Your task to perform on an android device: toggle wifi Image 0: 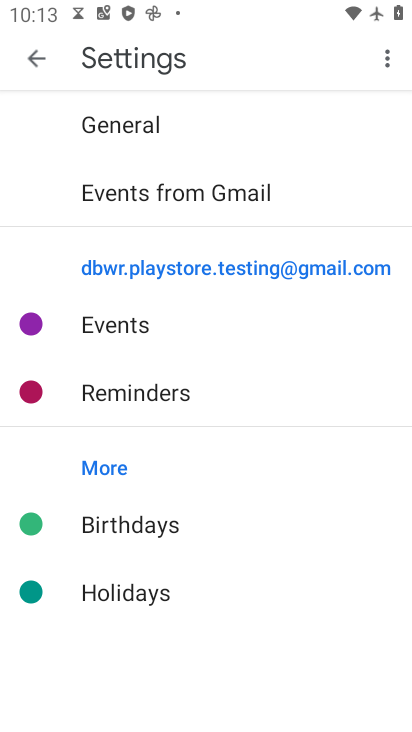
Step 0: press back button
Your task to perform on an android device: toggle wifi Image 1: 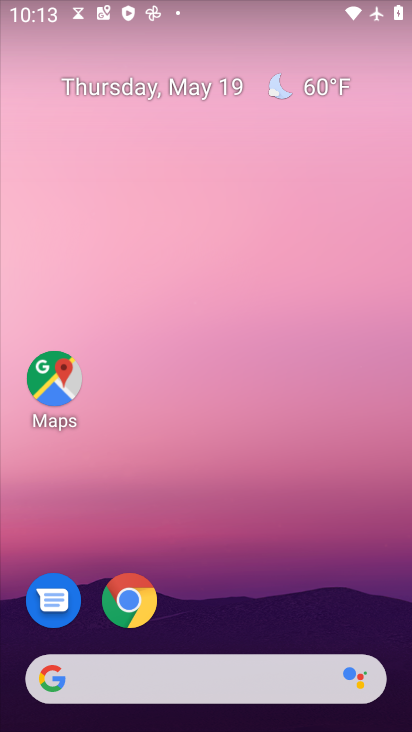
Step 1: drag from (200, 523) to (205, 6)
Your task to perform on an android device: toggle wifi Image 2: 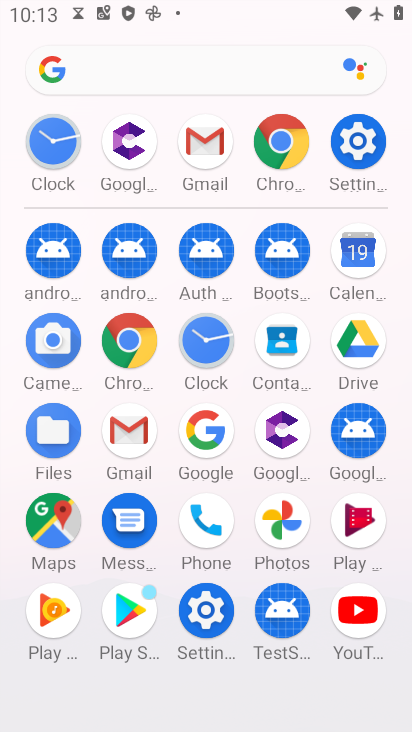
Step 2: drag from (9, 543) to (13, 260)
Your task to perform on an android device: toggle wifi Image 3: 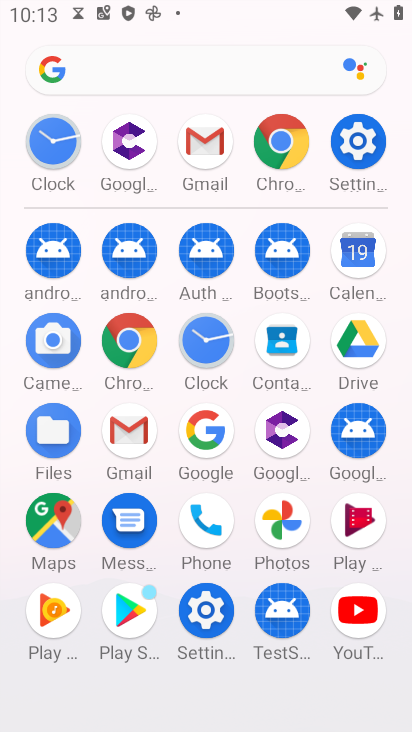
Step 3: click (208, 604)
Your task to perform on an android device: toggle wifi Image 4: 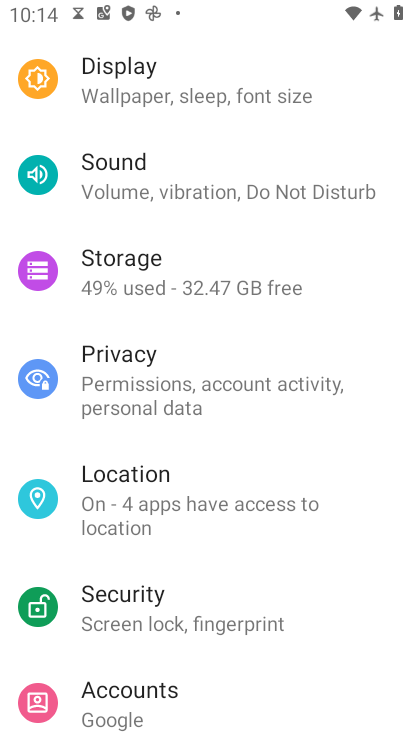
Step 4: drag from (203, 106) to (196, 534)
Your task to perform on an android device: toggle wifi Image 5: 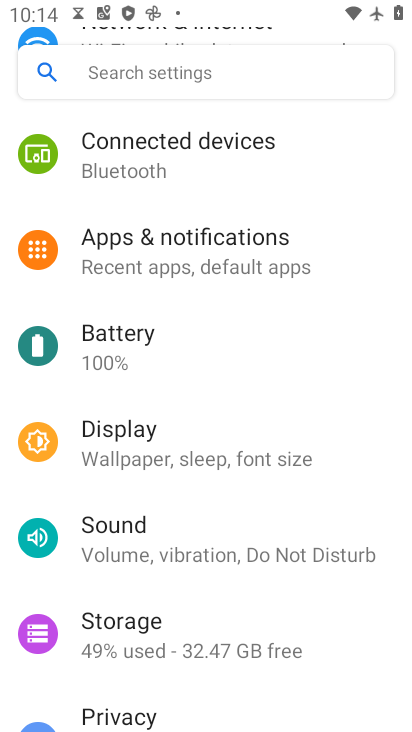
Step 5: drag from (225, 208) to (247, 602)
Your task to perform on an android device: toggle wifi Image 6: 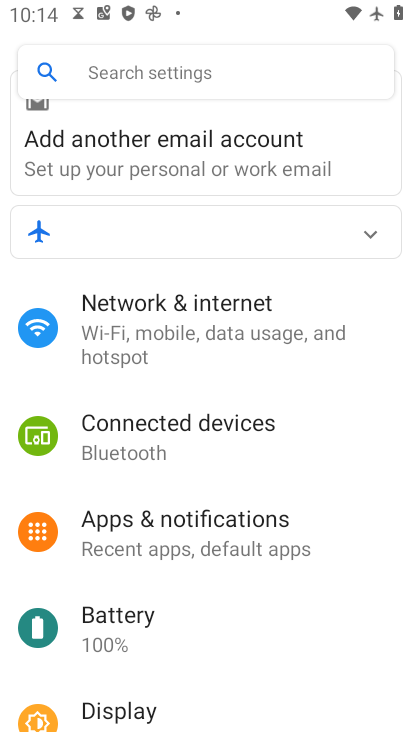
Step 6: click (217, 318)
Your task to perform on an android device: toggle wifi Image 7: 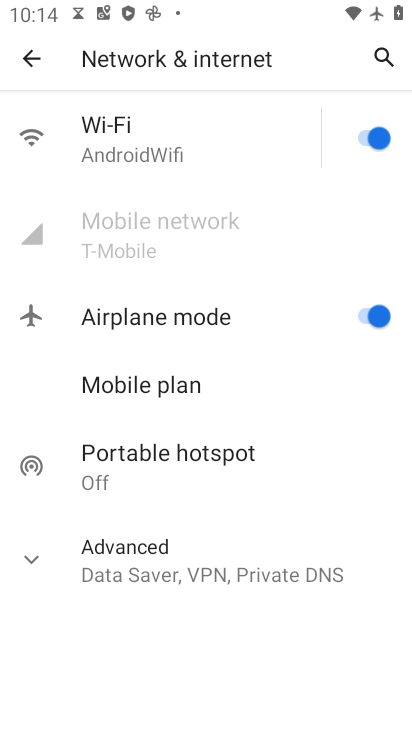
Step 7: click (367, 137)
Your task to perform on an android device: toggle wifi Image 8: 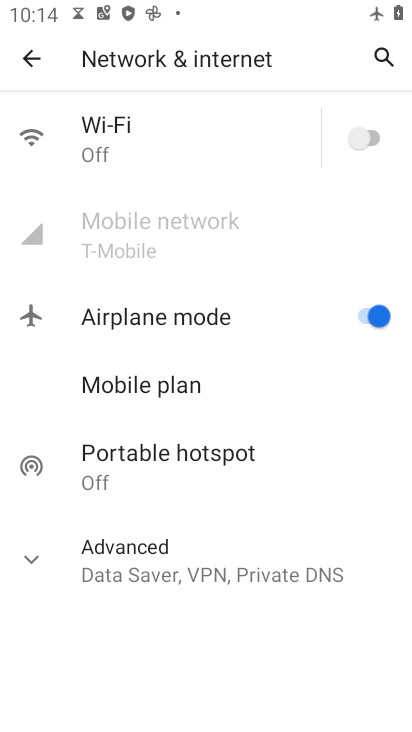
Step 8: task complete